Your task to perform on an android device: Open Reddit.com Image 0: 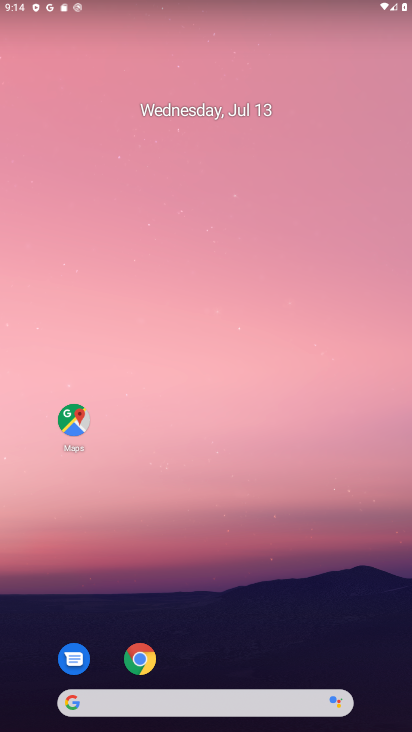
Step 0: drag from (233, 625) to (242, 132)
Your task to perform on an android device: Open Reddit.com Image 1: 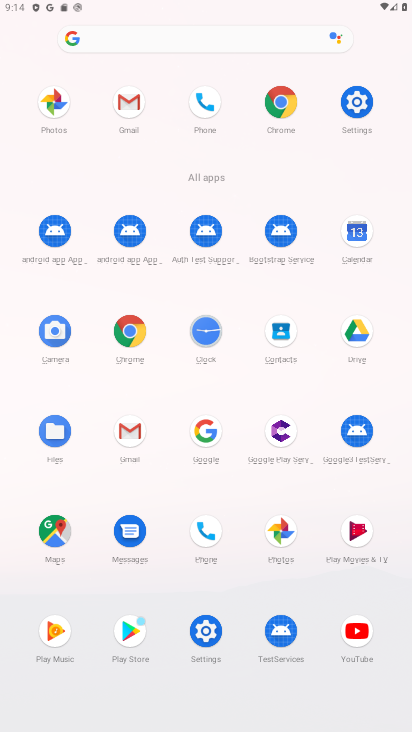
Step 1: click (283, 110)
Your task to perform on an android device: Open Reddit.com Image 2: 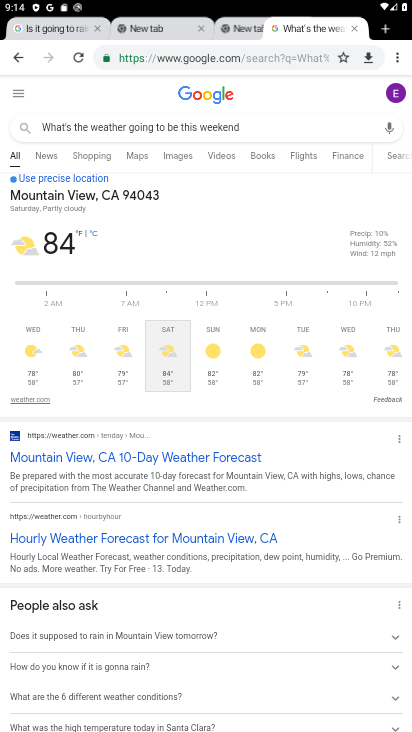
Step 2: click (386, 24)
Your task to perform on an android device: Open Reddit.com Image 3: 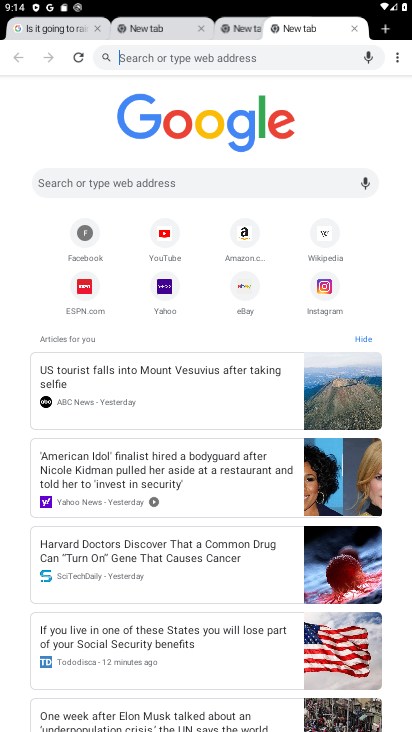
Step 3: click (114, 175)
Your task to perform on an android device: Open Reddit.com Image 4: 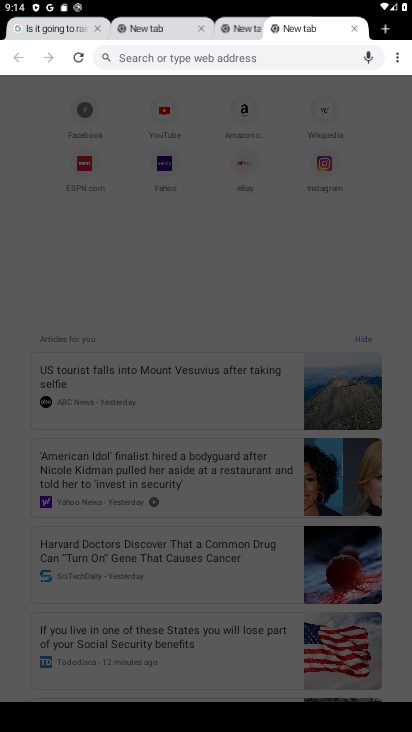
Step 4: type "Reddit.com "
Your task to perform on an android device: Open Reddit.com Image 5: 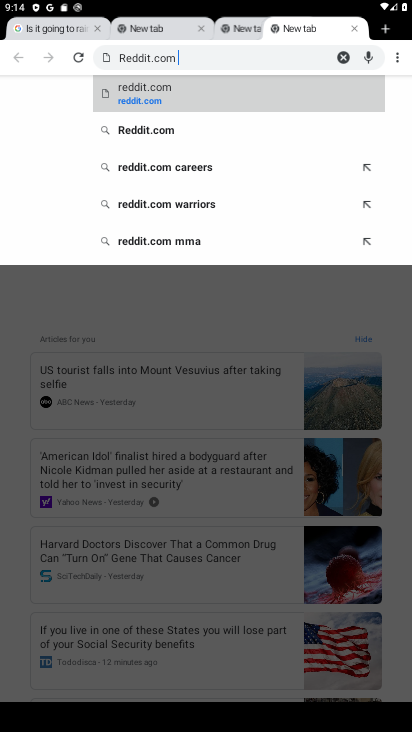
Step 5: click (186, 97)
Your task to perform on an android device: Open Reddit.com Image 6: 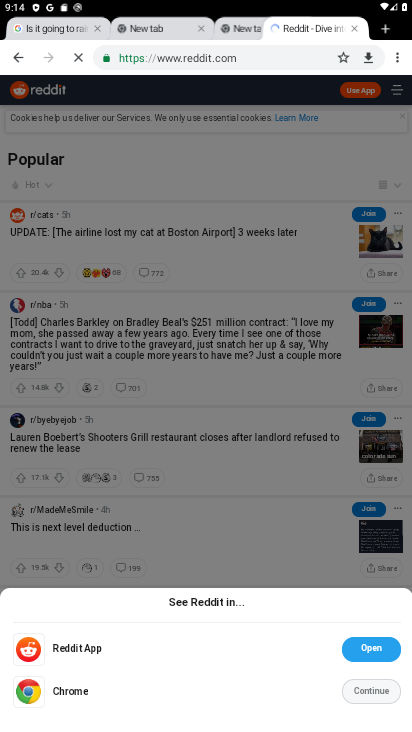
Step 6: task complete